Your task to perform on an android device: toggle javascript in the chrome app Image 0: 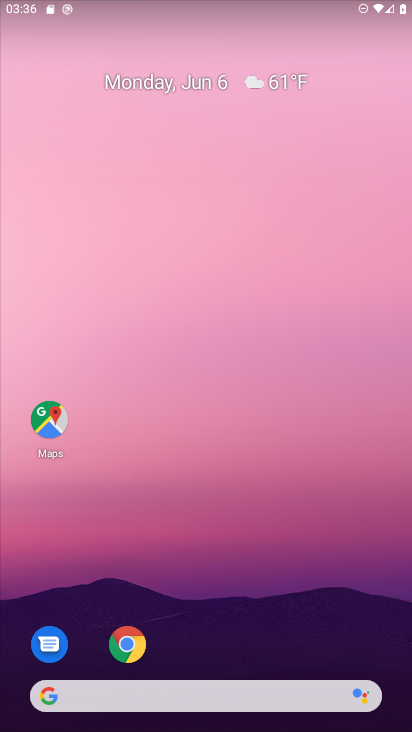
Step 0: drag from (264, 618) to (290, 28)
Your task to perform on an android device: toggle javascript in the chrome app Image 1: 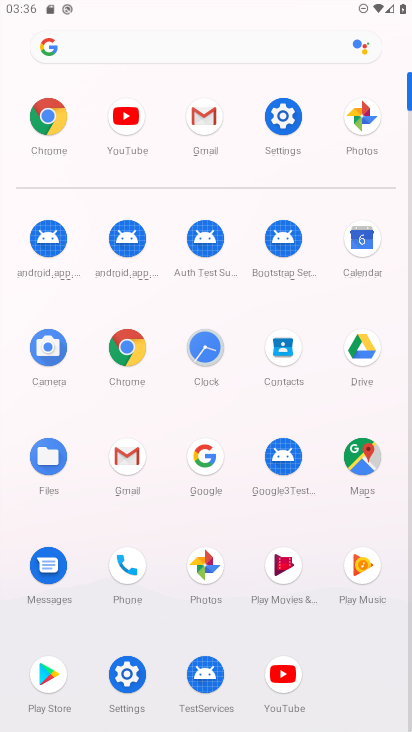
Step 1: click (129, 360)
Your task to perform on an android device: toggle javascript in the chrome app Image 2: 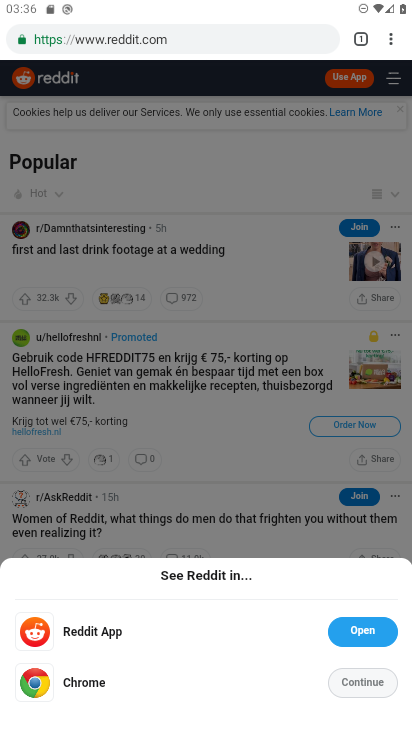
Step 2: click (390, 41)
Your task to perform on an android device: toggle javascript in the chrome app Image 3: 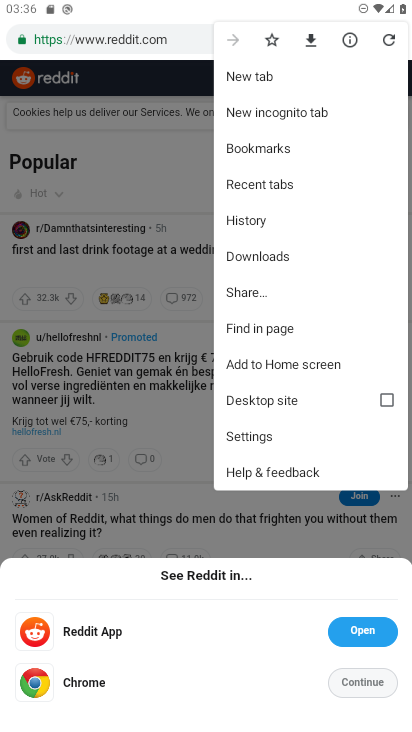
Step 3: click (259, 436)
Your task to perform on an android device: toggle javascript in the chrome app Image 4: 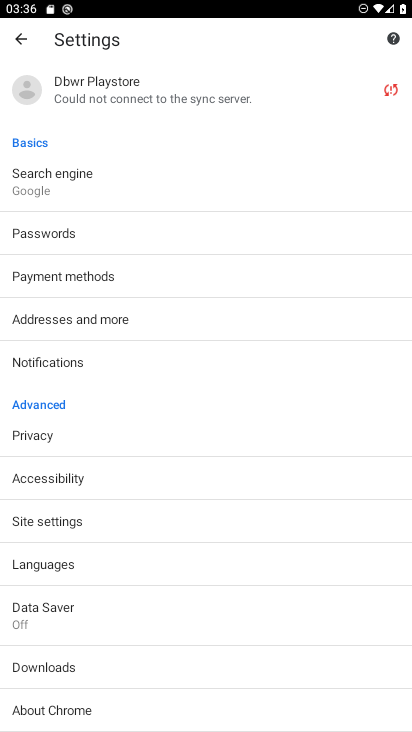
Step 4: click (72, 512)
Your task to perform on an android device: toggle javascript in the chrome app Image 5: 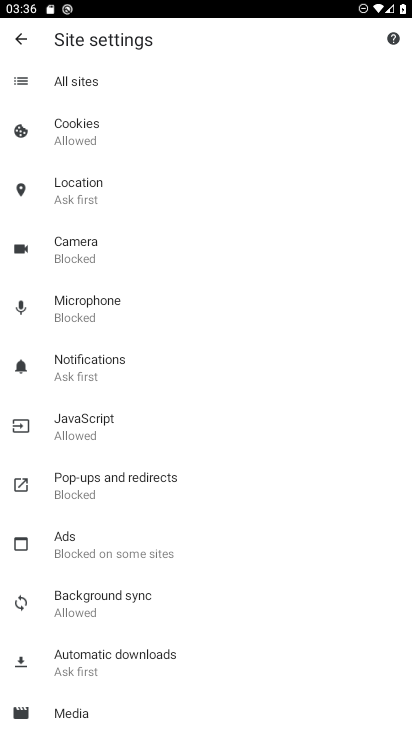
Step 5: click (91, 434)
Your task to perform on an android device: toggle javascript in the chrome app Image 6: 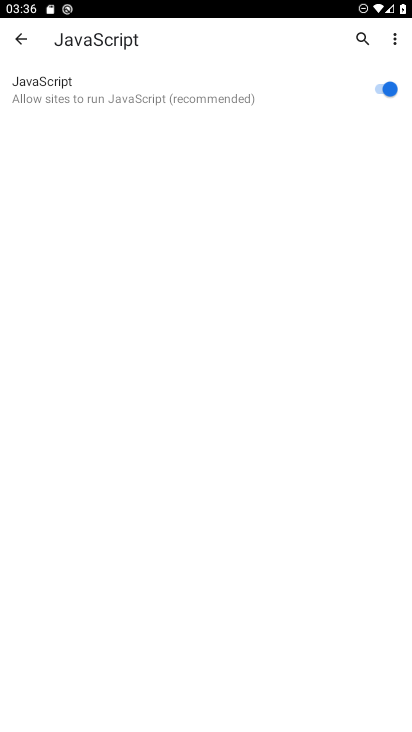
Step 6: click (348, 90)
Your task to perform on an android device: toggle javascript in the chrome app Image 7: 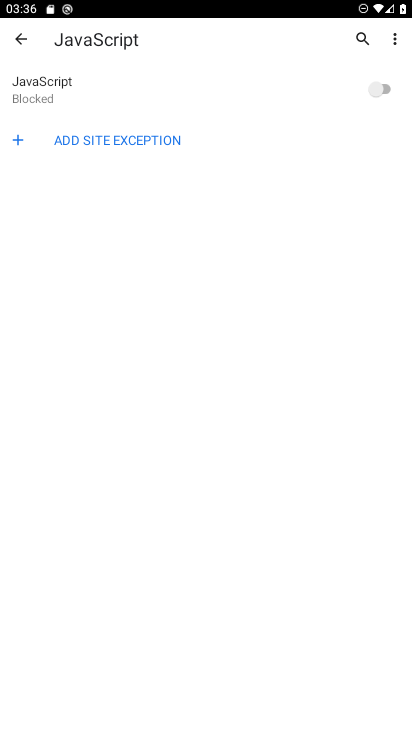
Step 7: task complete